Your task to perform on an android device: open wifi settings Image 0: 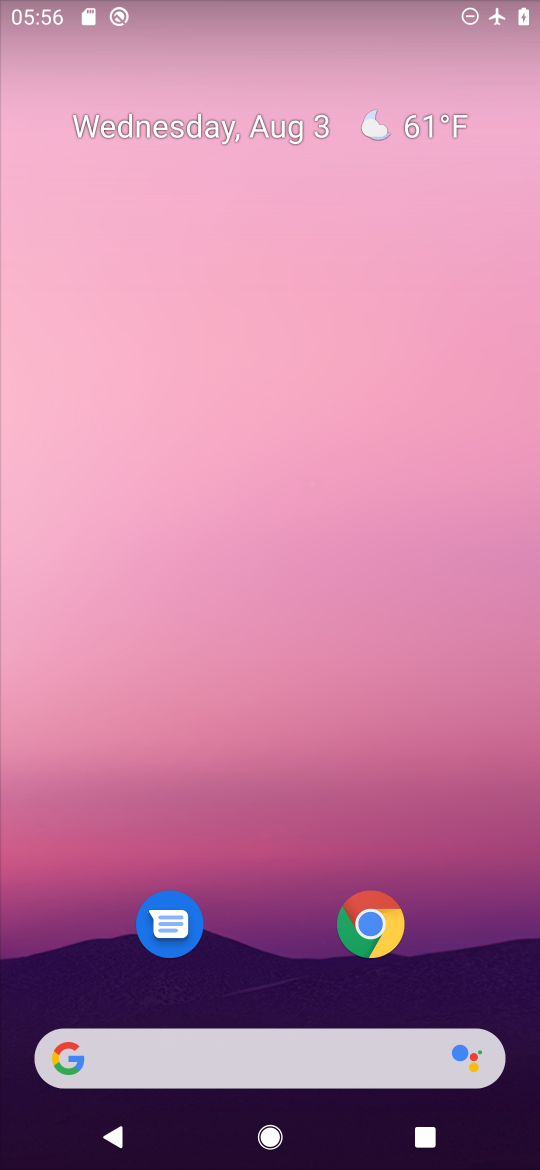
Step 0: drag from (264, 966) to (176, 242)
Your task to perform on an android device: open wifi settings Image 1: 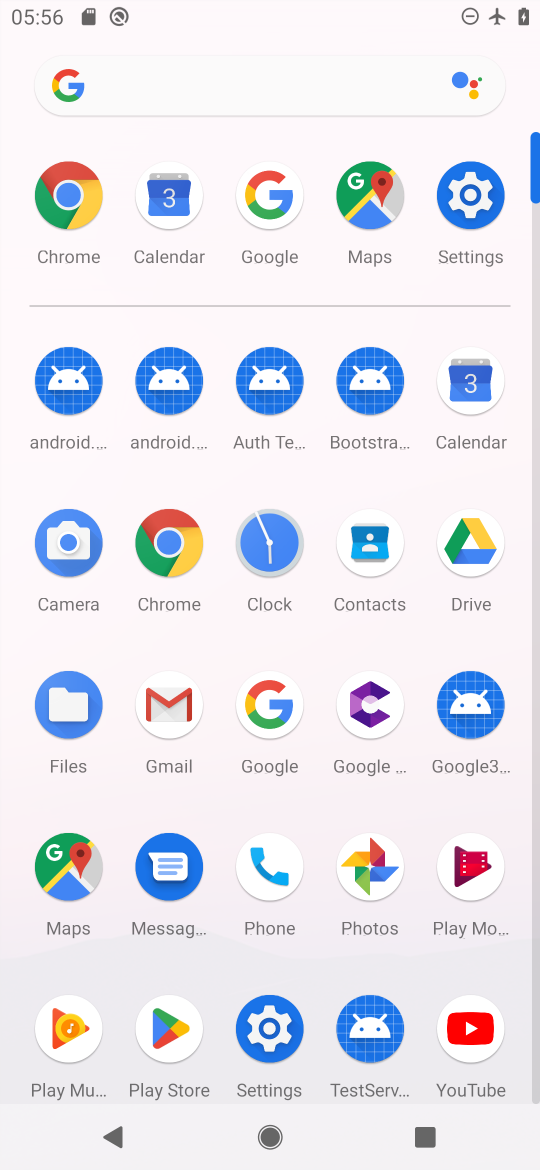
Step 1: click (463, 209)
Your task to perform on an android device: open wifi settings Image 2: 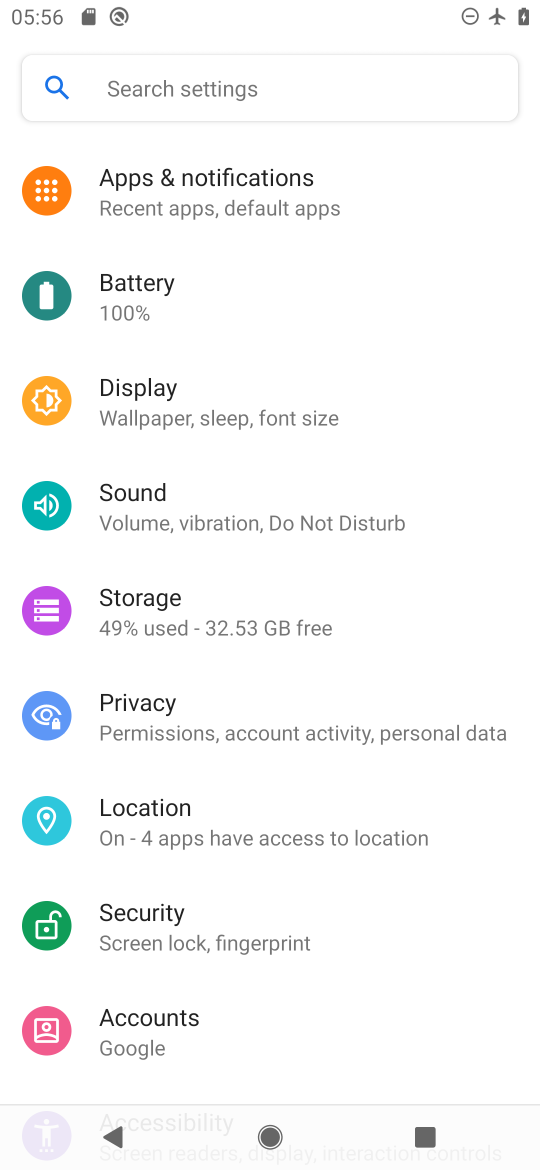
Step 2: drag from (243, 361) to (285, 865)
Your task to perform on an android device: open wifi settings Image 3: 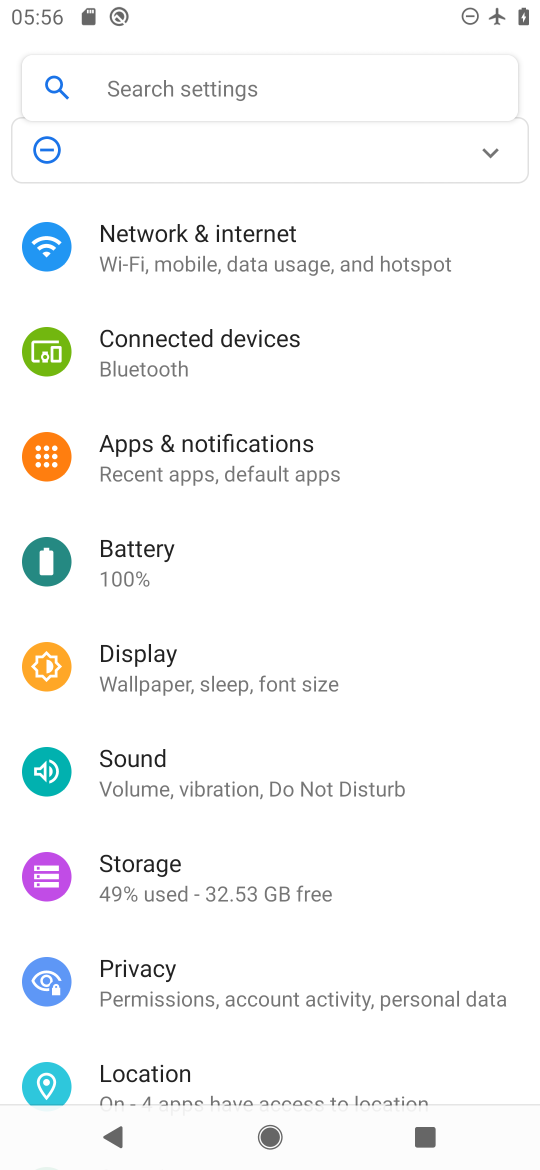
Step 3: click (183, 264)
Your task to perform on an android device: open wifi settings Image 4: 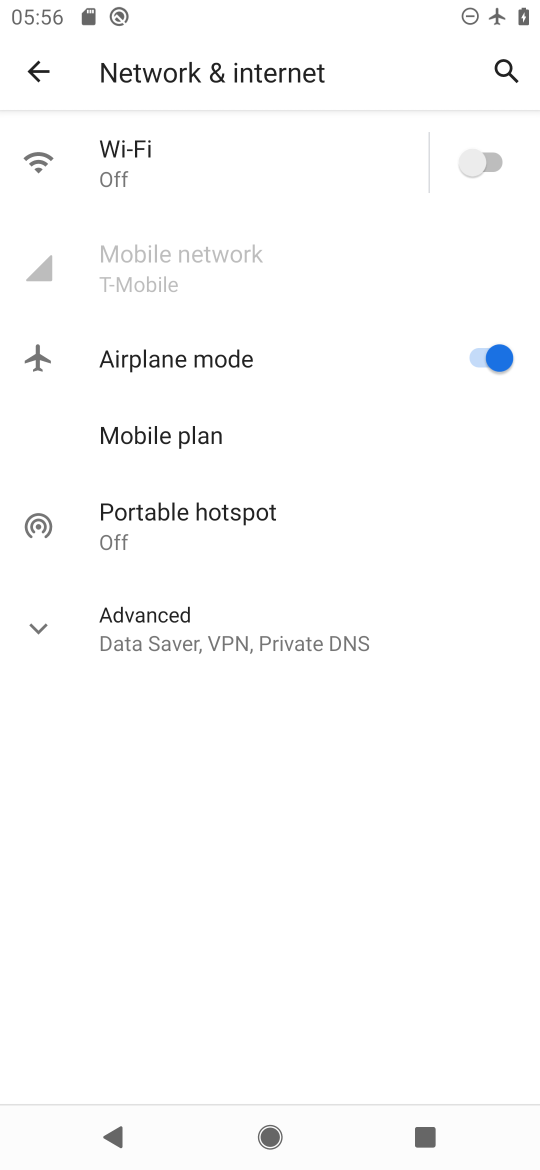
Step 4: click (191, 165)
Your task to perform on an android device: open wifi settings Image 5: 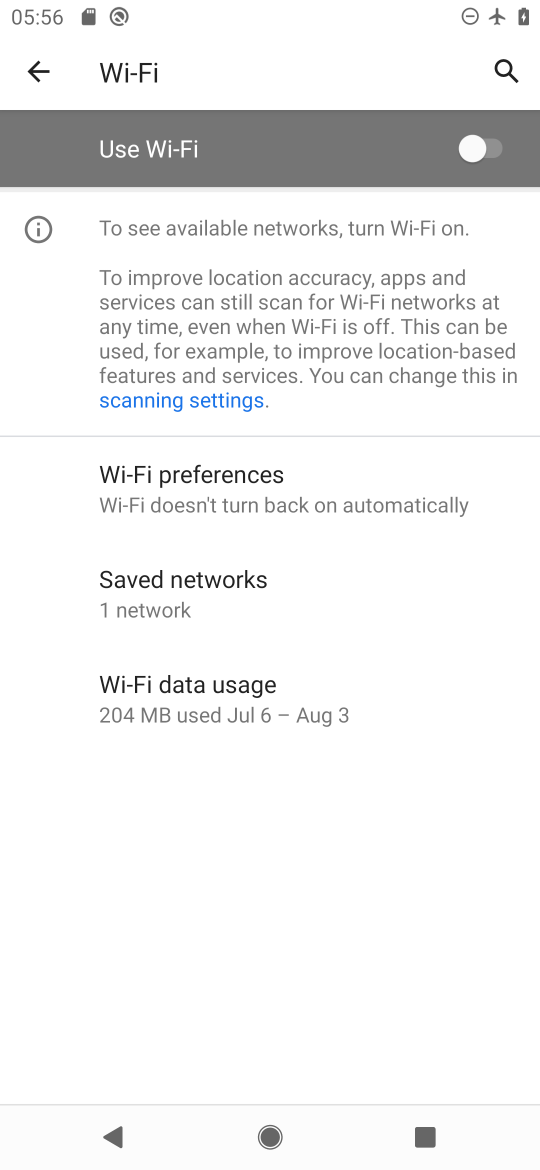
Step 5: task complete